Your task to perform on an android device: Search for Mexican restaurants on Maps Image 0: 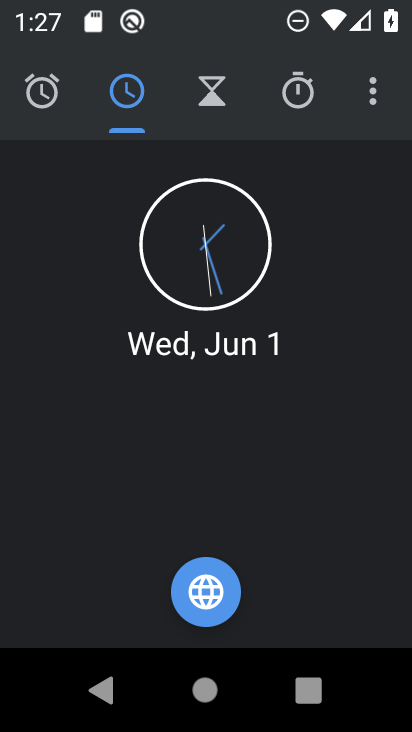
Step 0: press home button
Your task to perform on an android device: Search for Mexican restaurants on Maps Image 1: 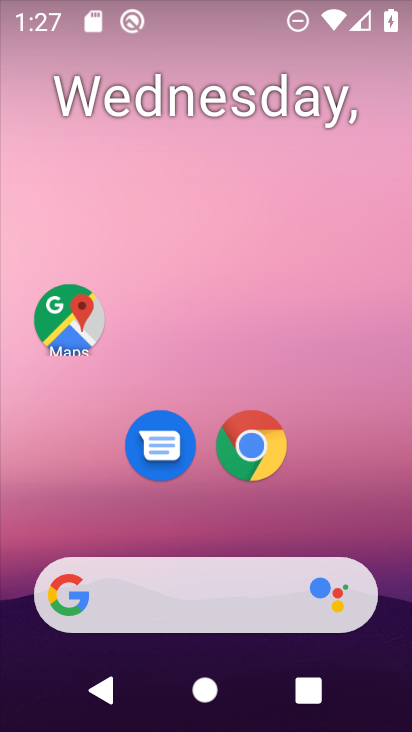
Step 1: drag from (395, 618) to (294, 114)
Your task to perform on an android device: Search for Mexican restaurants on Maps Image 2: 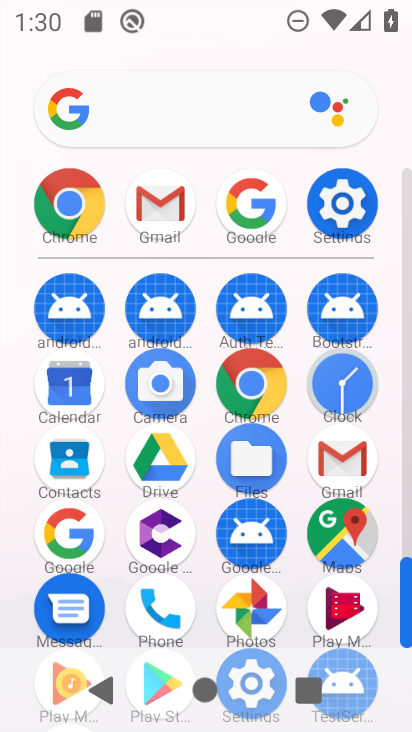
Step 2: click (342, 534)
Your task to perform on an android device: Search for Mexican restaurants on Maps Image 3: 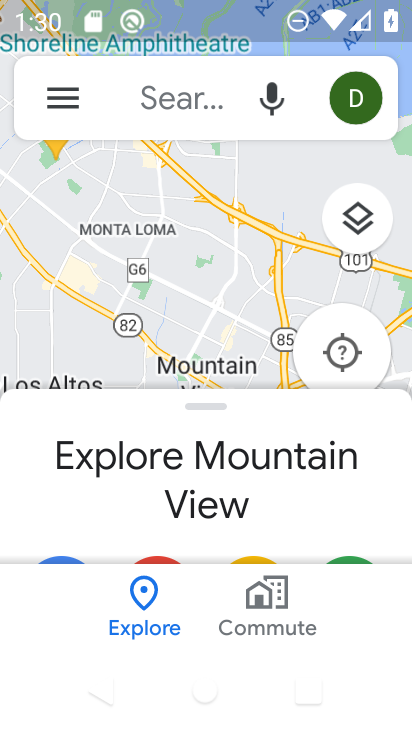
Step 3: click (167, 105)
Your task to perform on an android device: Search for Mexican restaurants on Maps Image 4: 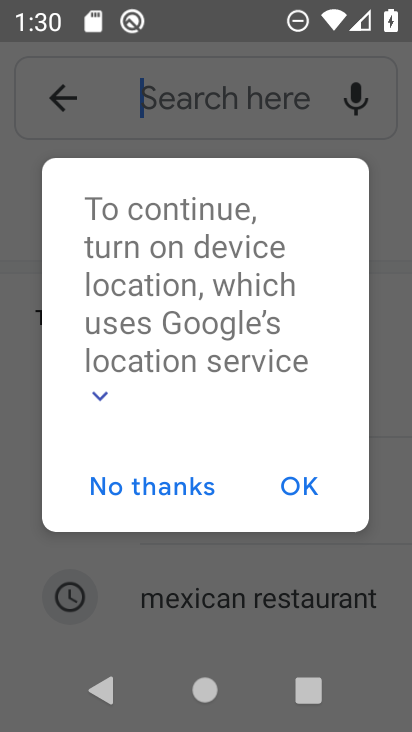
Step 4: click (181, 484)
Your task to perform on an android device: Search for Mexican restaurants on Maps Image 5: 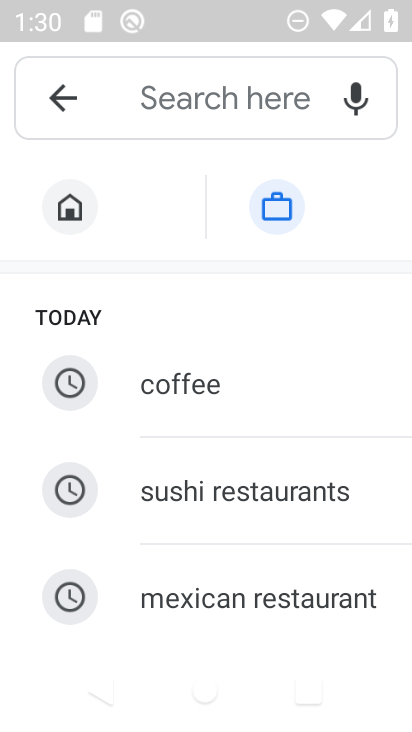
Step 5: click (238, 596)
Your task to perform on an android device: Search for Mexican restaurants on Maps Image 6: 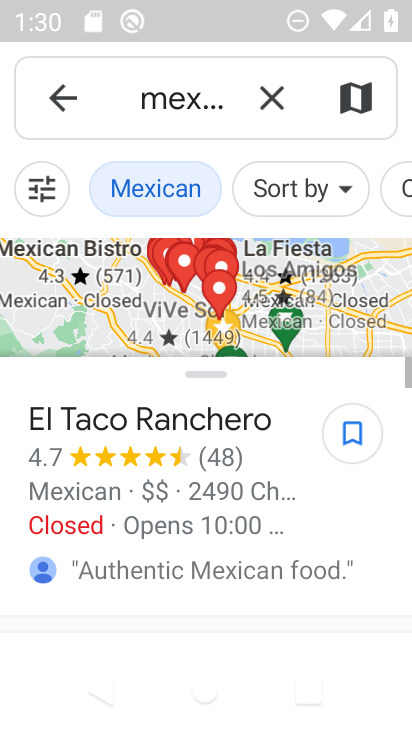
Step 6: task complete